Your task to perform on an android device: check storage Image 0: 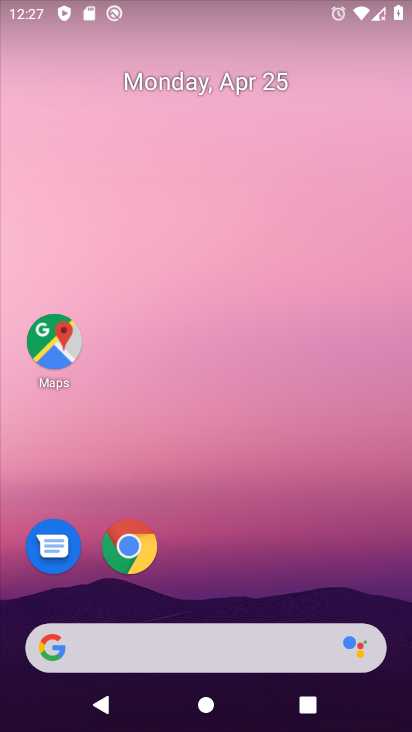
Step 0: drag from (229, 595) to (245, 77)
Your task to perform on an android device: check storage Image 1: 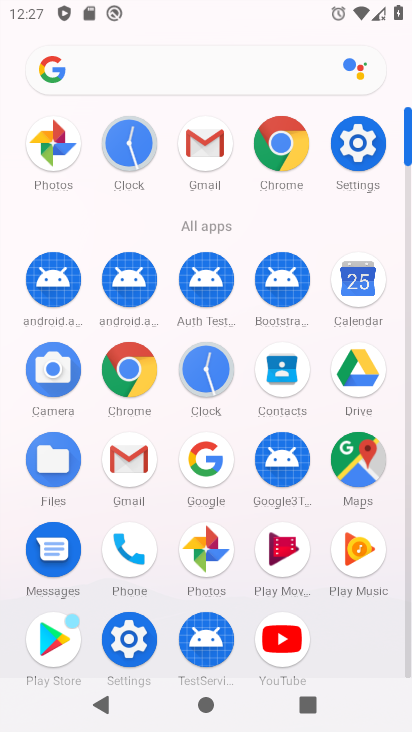
Step 1: drag from (124, 153) to (409, 445)
Your task to perform on an android device: check storage Image 2: 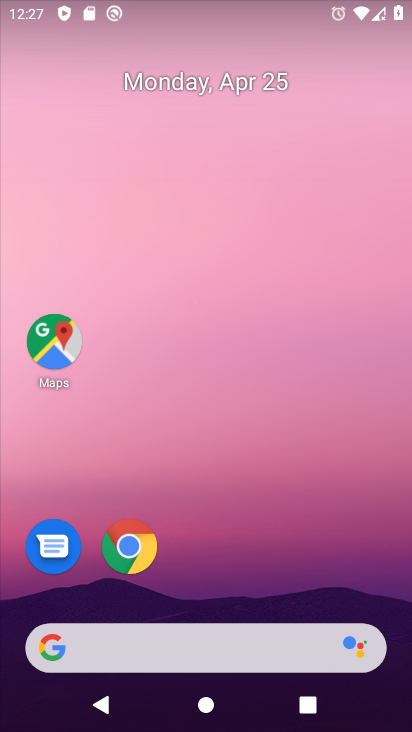
Step 2: drag from (179, 588) to (169, 48)
Your task to perform on an android device: check storage Image 3: 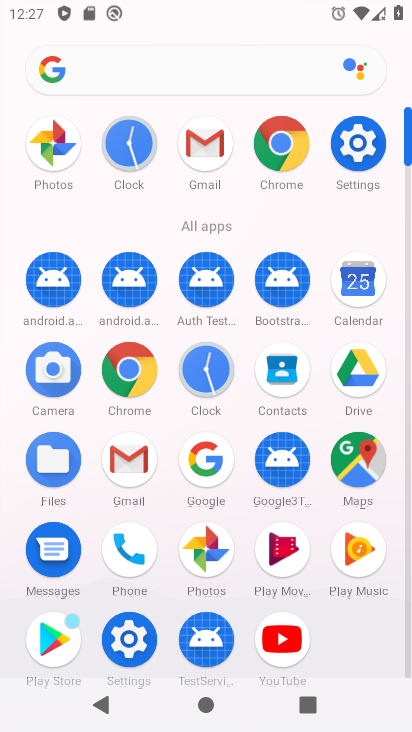
Step 3: click (348, 159)
Your task to perform on an android device: check storage Image 4: 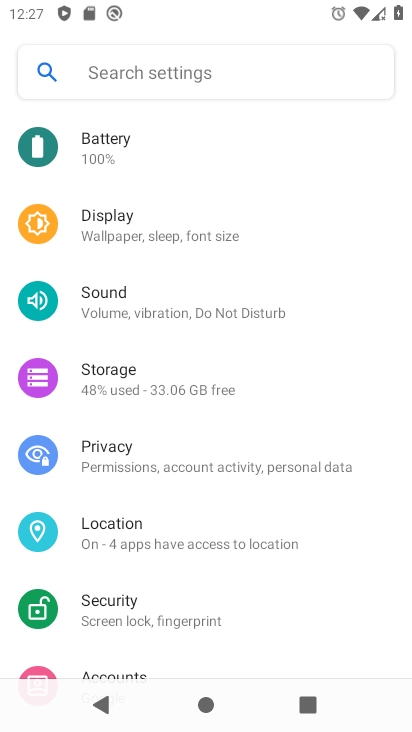
Step 4: drag from (108, 592) to (209, 73)
Your task to perform on an android device: check storage Image 5: 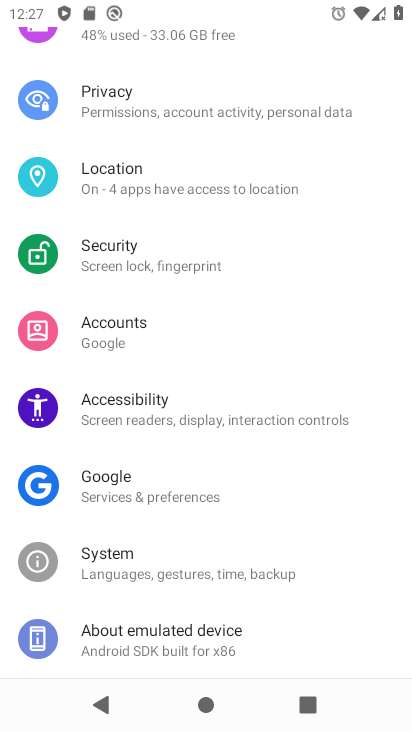
Step 5: drag from (151, 185) to (130, 682)
Your task to perform on an android device: check storage Image 6: 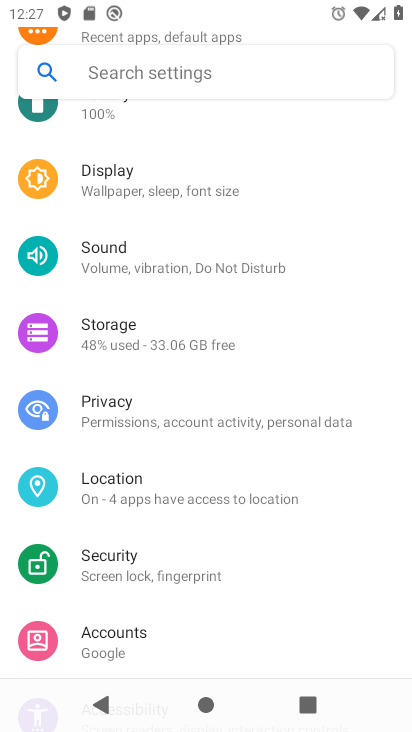
Step 6: drag from (182, 232) to (175, 626)
Your task to perform on an android device: check storage Image 7: 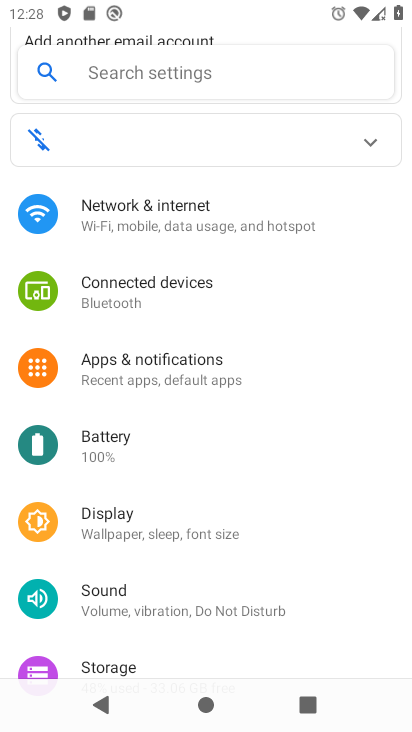
Step 7: drag from (113, 594) to (167, 238)
Your task to perform on an android device: check storage Image 8: 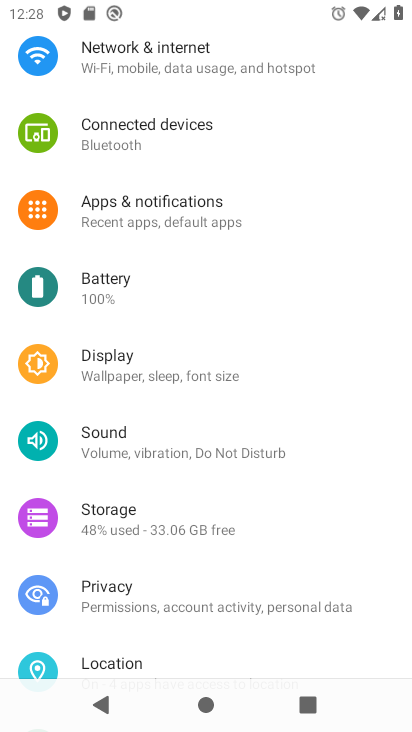
Step 8: click (107, 504)
Your task to perform on an android device: check storage Image 9: 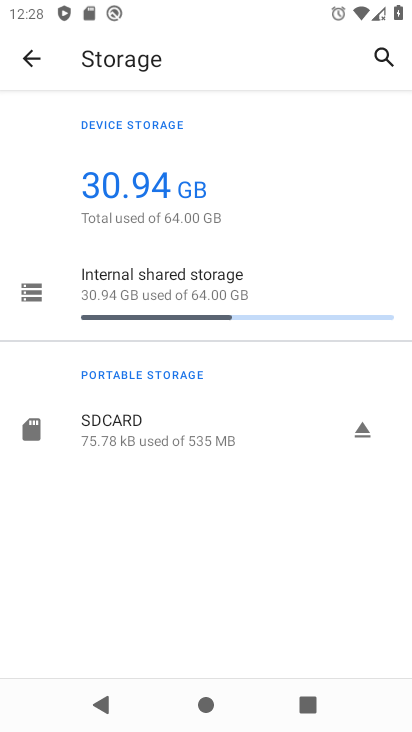
Step 9: click (33, 44)
Your task to perform on an android device: check storage Image 10: 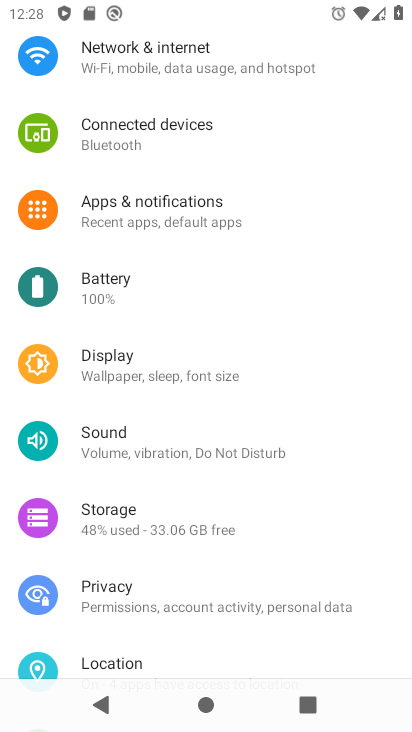
Step 10: click (92, 506)
Your task to perform on an android device: check storage Image 11: 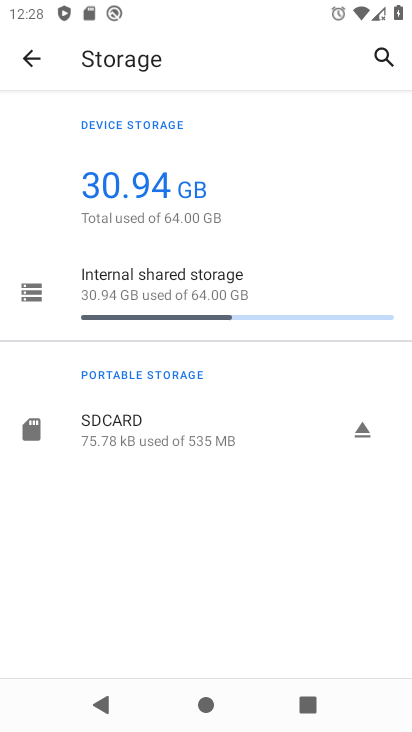
Step 11: task complete